Your task to perform on an android device: all mails in gmail Image 0: 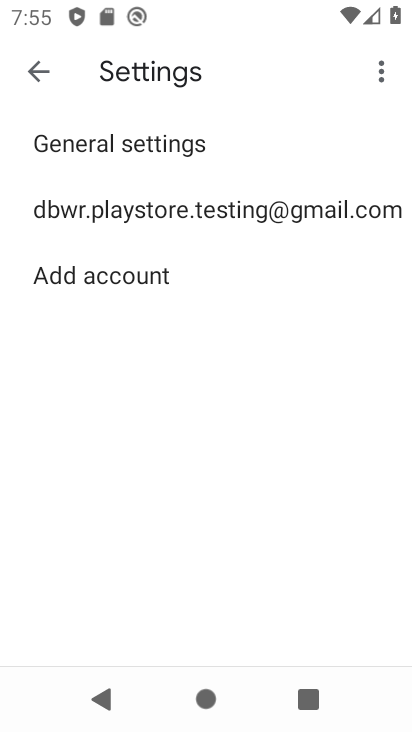
Step 0: click (44, 74)
Your task to perform on an android device: all mails in gmail Image 1: 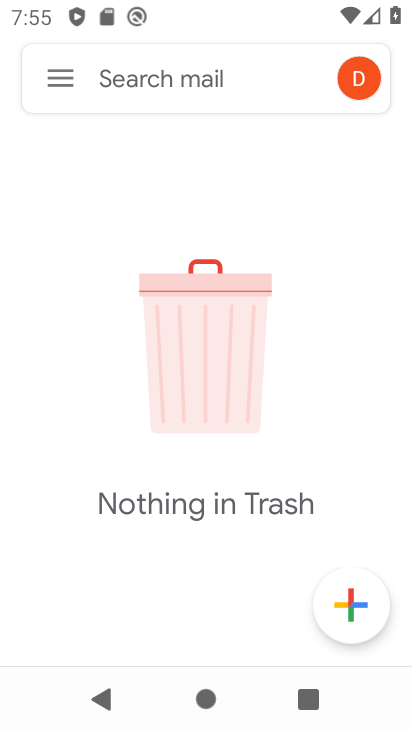
Step 1: click (50, 79)
Your task to perform on an android device: all mails in gmail Image 2: 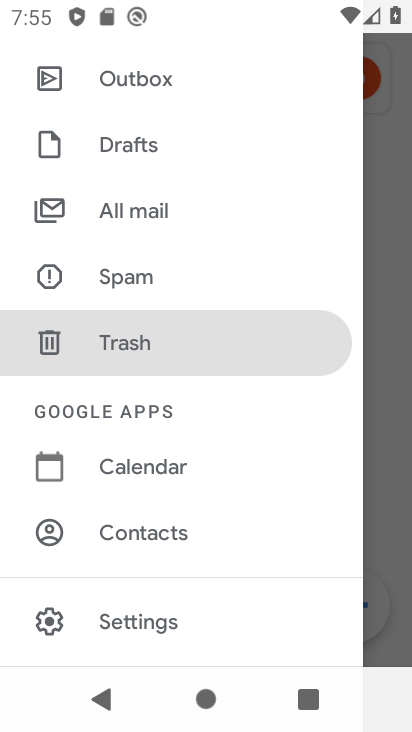
Step 2: click (142, 208)
Your task to perform on an android device: all mails in gmail Image 3: 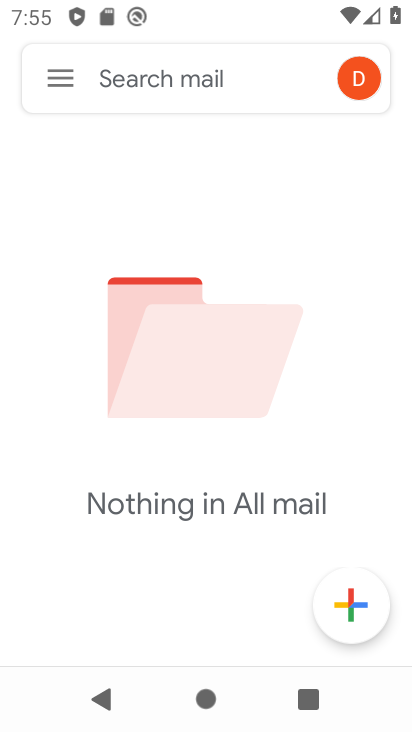
Step 3: task complete